Your task to perform on an android device: open sync settings in chrome Image 0: 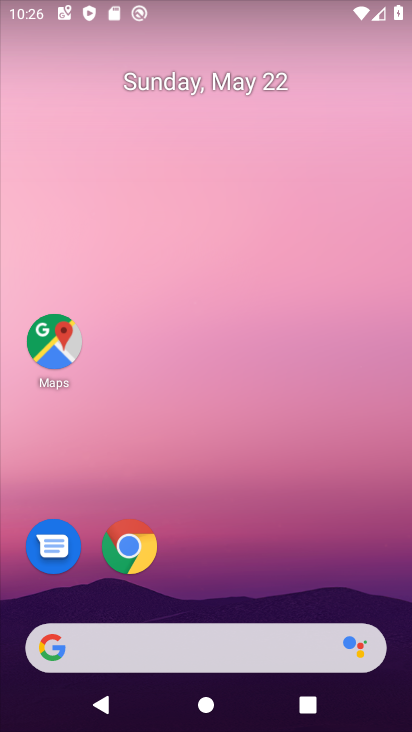
Step 0: drag from (204, 609) to (255, 72)
Your task to perform on an android device: open sync settings in chrome Image 1: 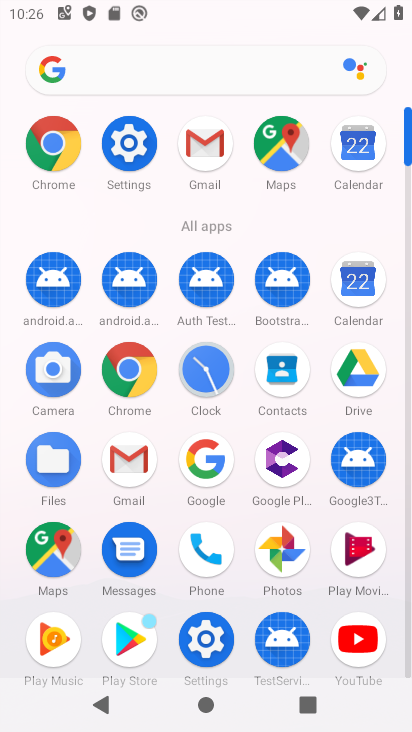
Step 1: click (138, 364)
Your task to perform on an android device: open sync settings in chrome Image 2: 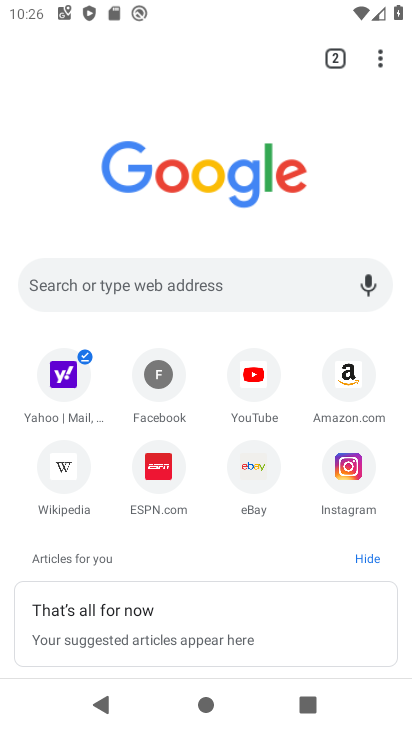
Step 2: click (379, 56)
Your task to perform on an android device: open sync settings in chrome Image 3: 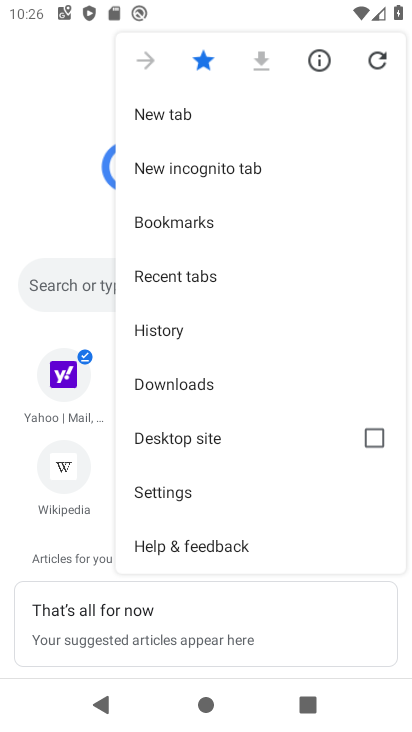
Step 3: click (185, 493)
Your task to perform on an android device: open sync settings in chrome Image 4: 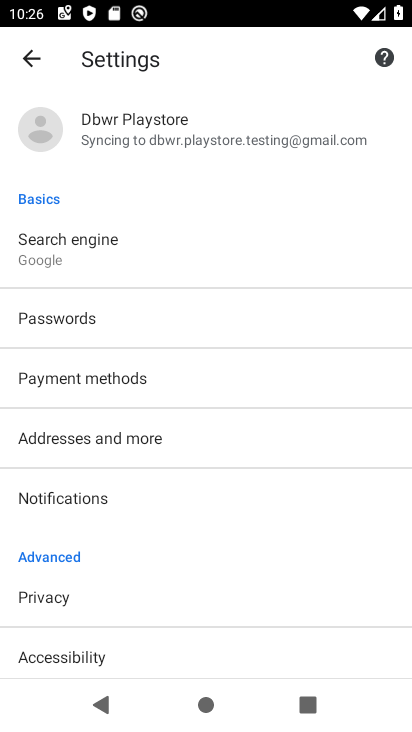
Step 4: click (161, 142)
Your task to perform on an android device: open sync settings in chrome Image 5: 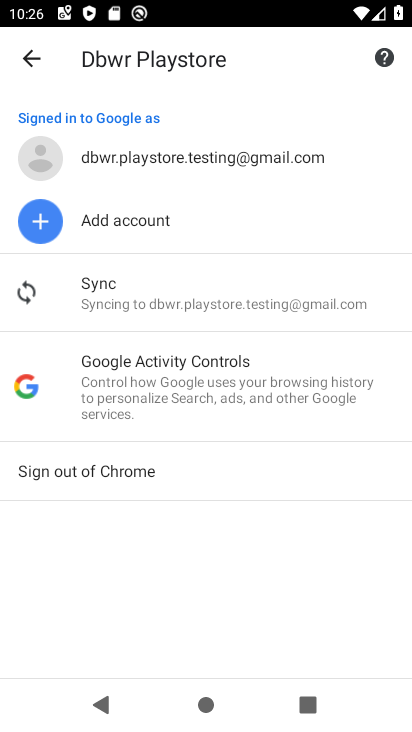
Step 5: click (149, 305)
Your task to perform on an android device: open sync settings in chrome Image 6: 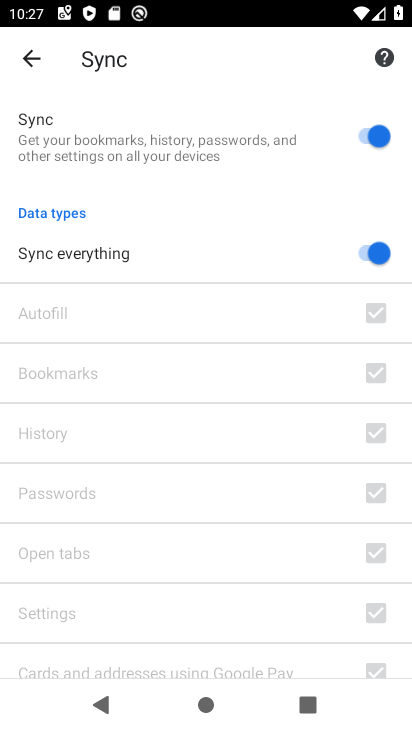
Step 6: task complete